Your task to perform on an android device: change notification settings in the gmail app Image 0: 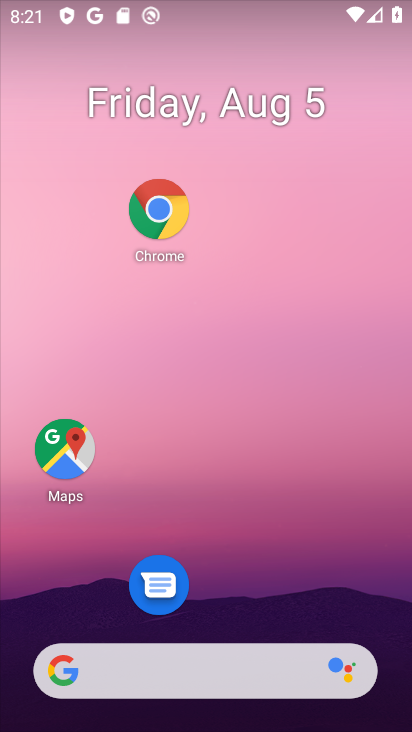
Step 0: drag from (240, 629) to (195, 9)
Your task to perform on an android device: change notification settings in the gmail app Image 1: 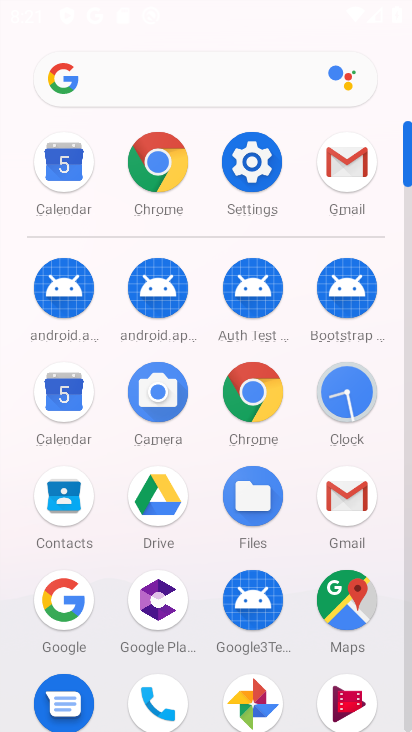
Step 1: click (353, 497)
Your task to perform on an android device: change notification settings in the gmail app Image 2: 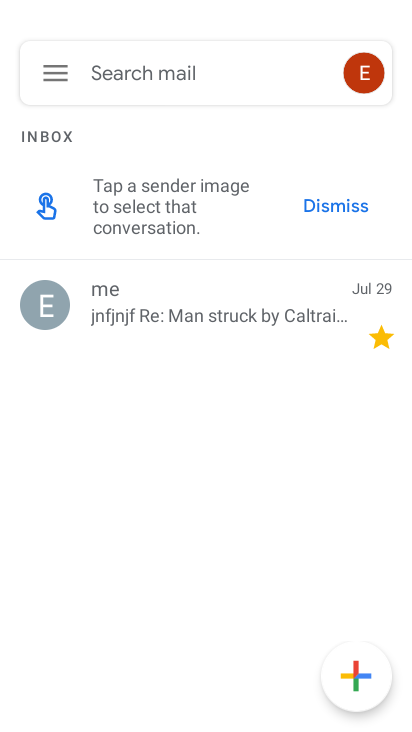
Step 2: click (119, 68)
Your task to perform on an android device: change notification settings in the gmail app Image 3: 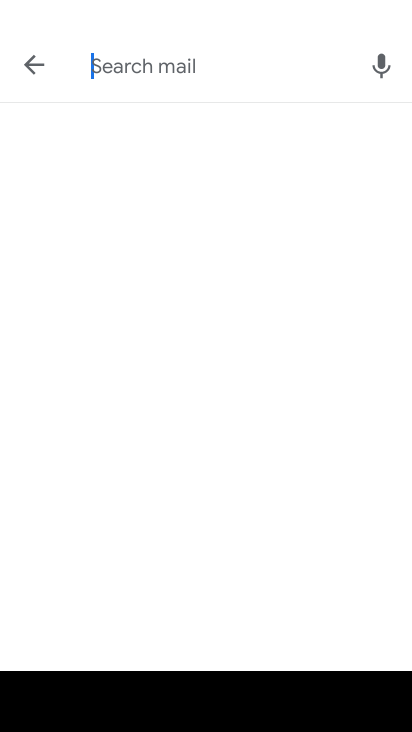
Step 3: click (29, 70)
Your task to perform on an android device: change notification settings in the gmail app Image 4: 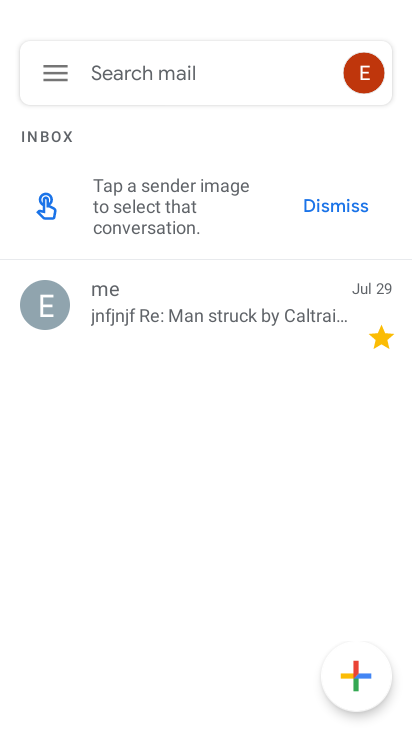
Step 4: click (29, 70)
Your task to perform on an android device: change notification settings in the gmail app Image 5: 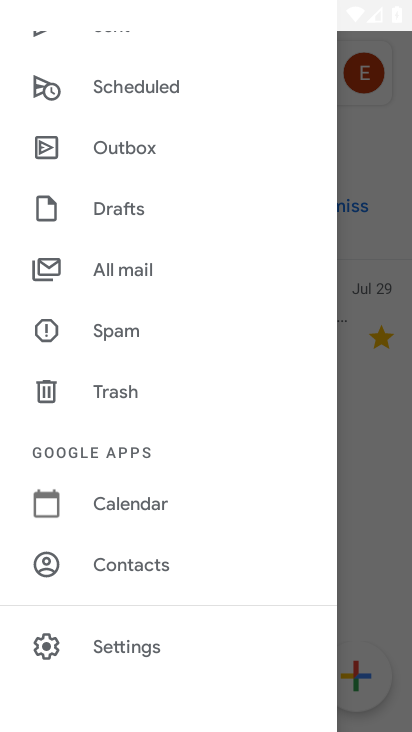
Step 5: click (74, 638)
Your task to perform on an android device: change notification settings in the gmail app Image 6: 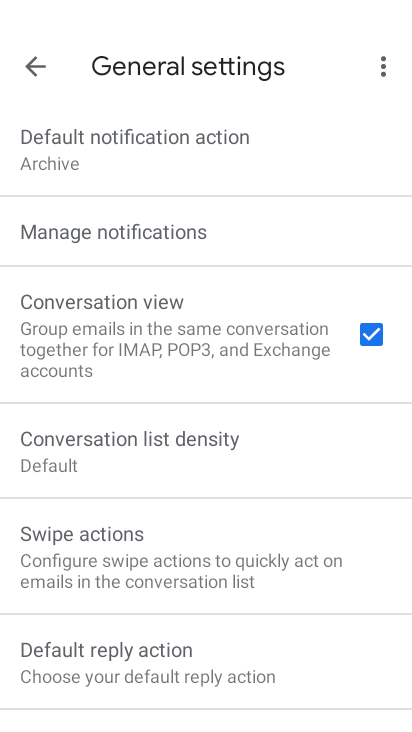
Step 6: click (237, 261)
Your task to perform on an android device: change notification settings in the gmail app Image 7: 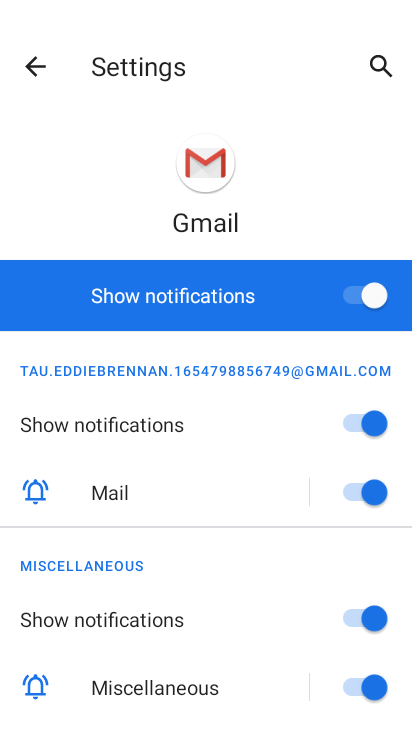
Step 7: click (358, 297)
Your task to perform on an android device: change notification settings in the gmail app Image 8: 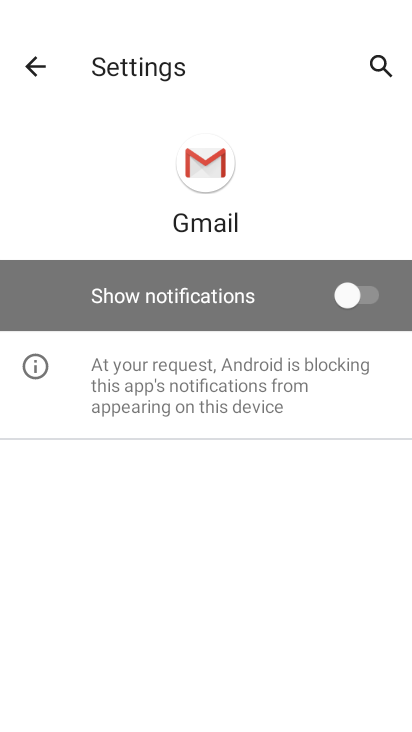
Step 8: task complete